Your task to perform on an android device: turn off picture-in-picture Image 0: 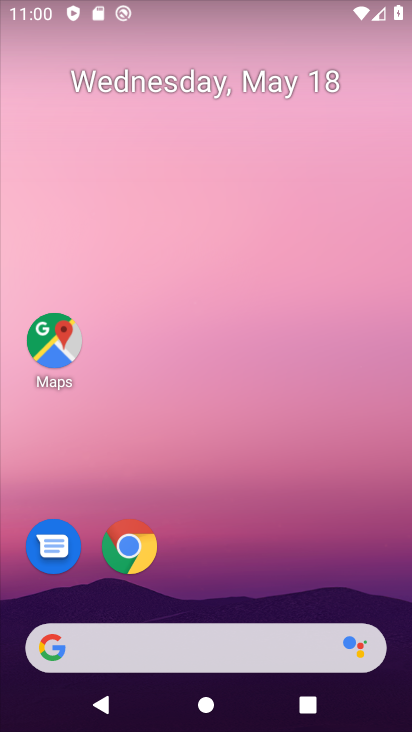
Step 0: click (133, 546)
Your task to perform on an android device: turn off picture-in-picture Image 1: 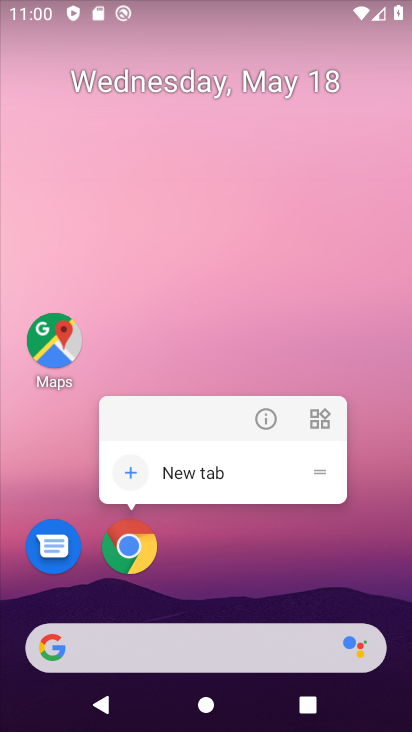
Step 1: click (264, 412)
Your task to perform on an android device: turn off picture-in-picture Image 2: 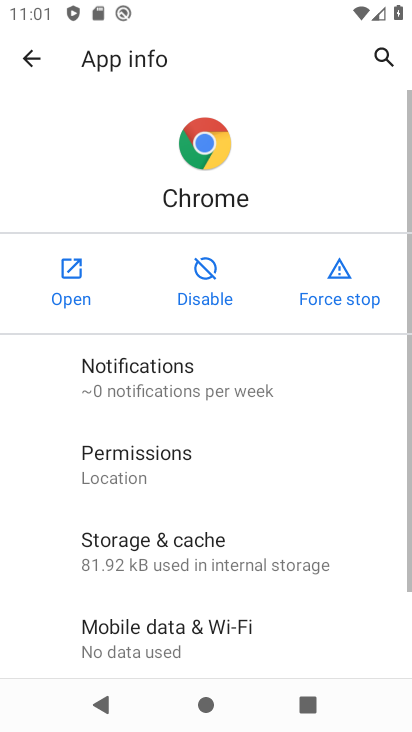
Step 2: drag from (300, 588) to (272, 89)
Your task to perform on an android device: turn off picture-in-picture Image 3: 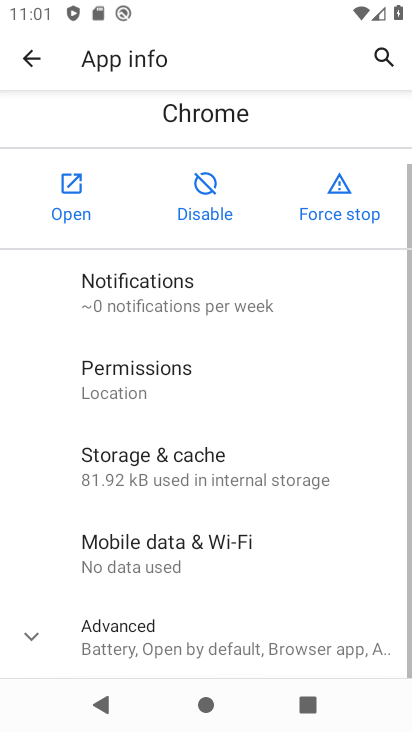
Step 3: click (124, 647)
Your task to perform on an android device: turn off picture-in-picture Image 4: 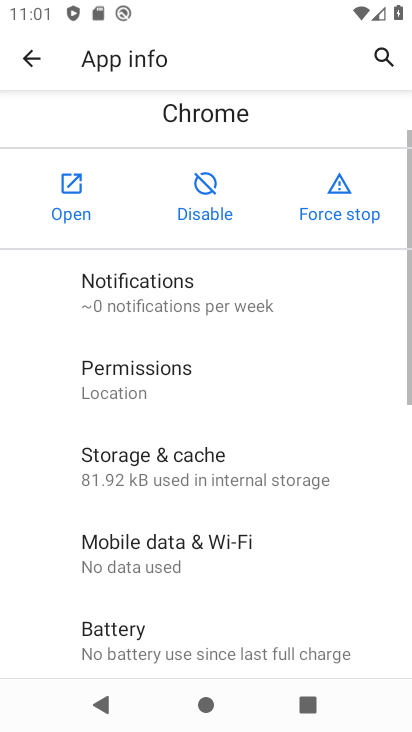
Step 4: drag from (275, 561) to (357, 138)
Your task to perform on an android device: turn off picture-in-picture Image 5: 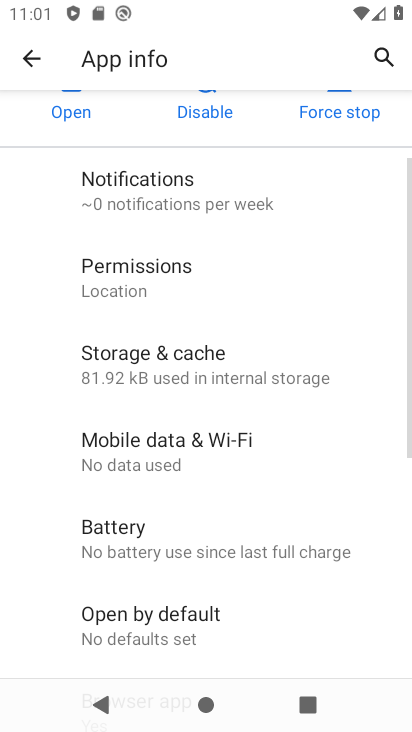
Step 5: drag from (239, 593) to (305, 70)
Your task to perform on an android device: turn off picture-in-picture Image 6: 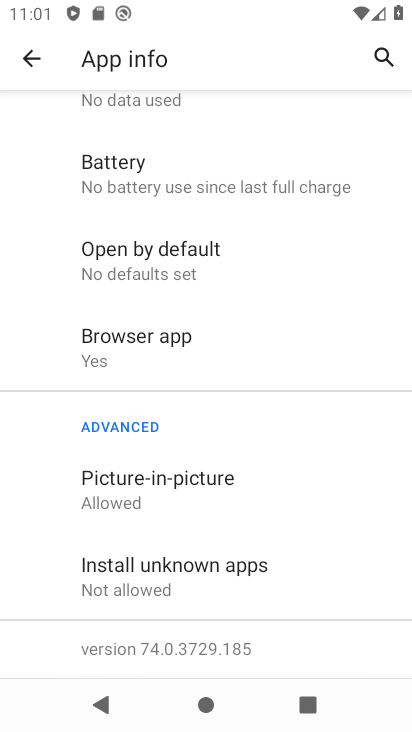
Step 6: click (168, 501)
Your task to perform on an android device: turn off picture-in-picture Image 7: 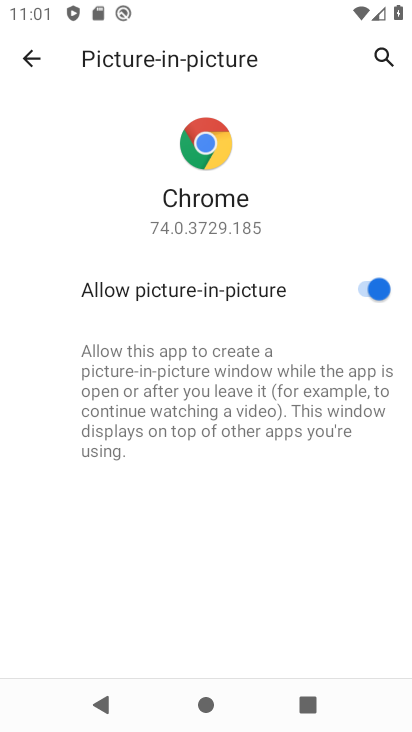
Step 7: click (365, 298)
Your task to perform on an android device: turn off picture-in-picture Image 8: 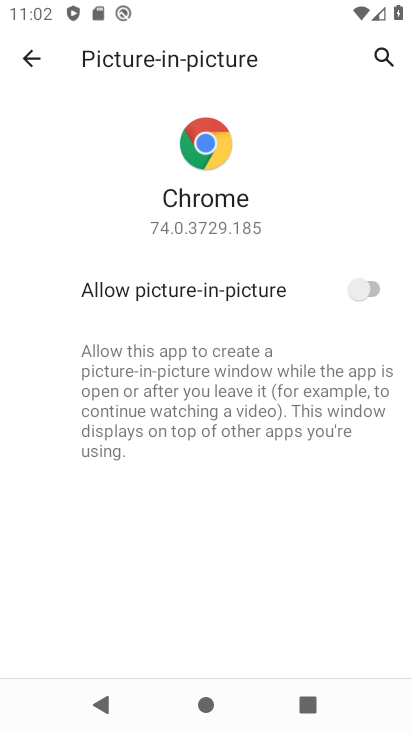
Step 8: task complete